Your task to perform on an android device: Open wifi settings Image 0: 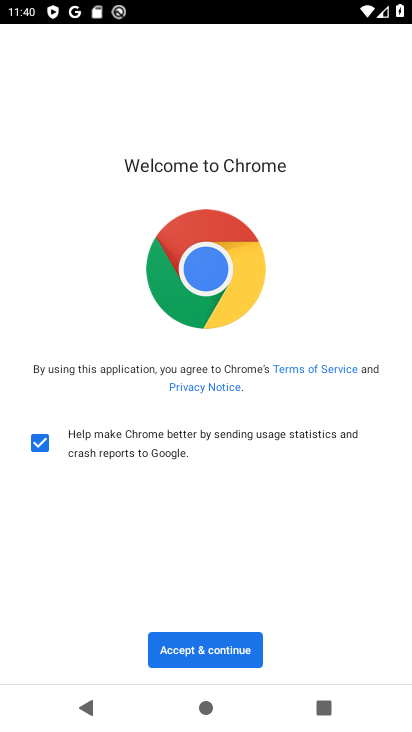
Step 0: press home button
Your task to perform on an android device: Open wifi settings Image 1: 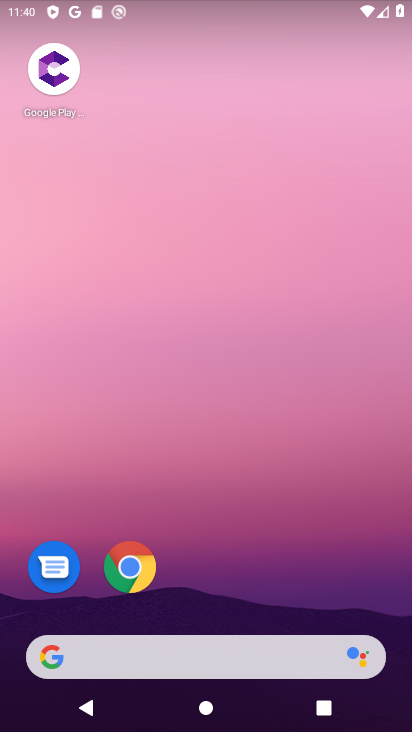
Step 1: drag from (285, 555) to (235, 0)
Your task to perform on an android device: Open wifi settings Image 2: 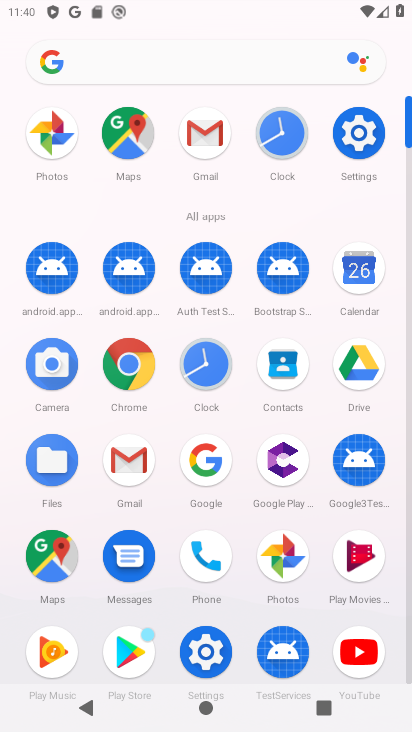
Step 2: click (192, 660)
Your task to perform on an android device: Open wifi settings Image 3: 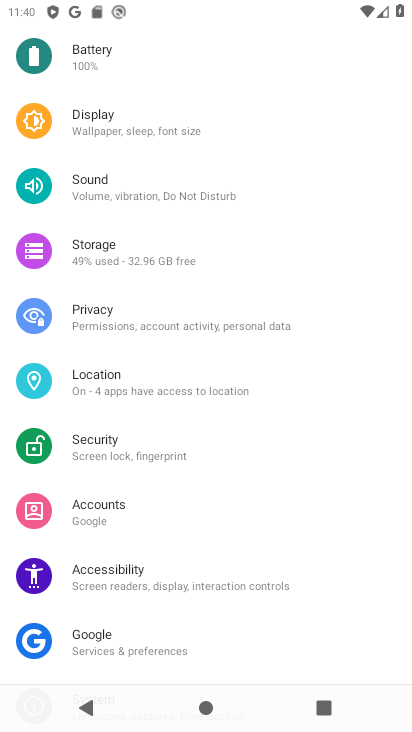
Step 3: drag from (107, 157) to (136, 639)
Your task to perform on an android device: Open wifi settings Image 4: 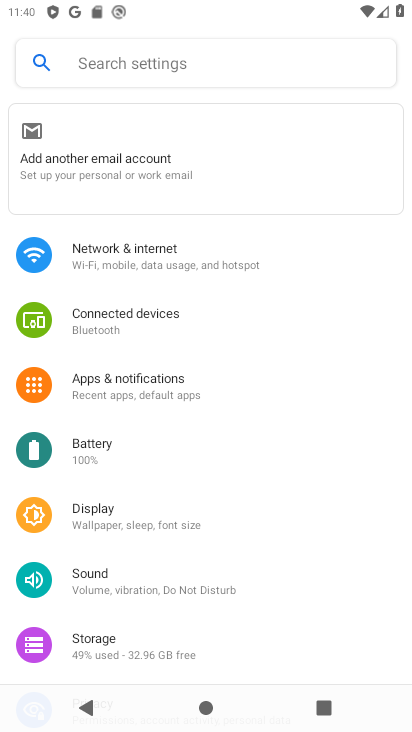
Step 4: click (157, 277)
Your task to perform on an android device: Open wifi settings Image 5: 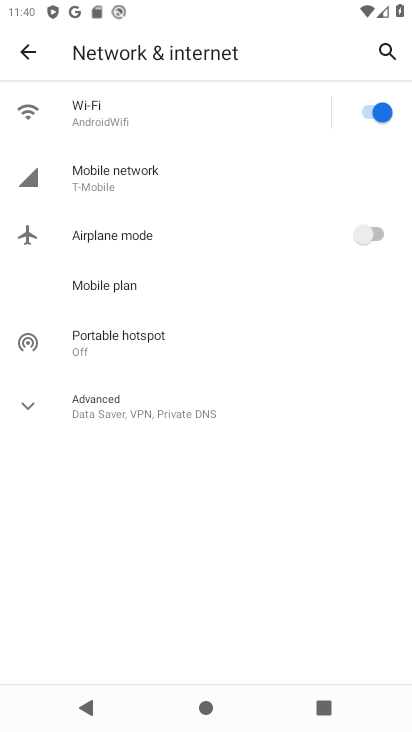
Step 5: click (114, 106)
Your task to perform on an android device: Open wifi settings Image 6: 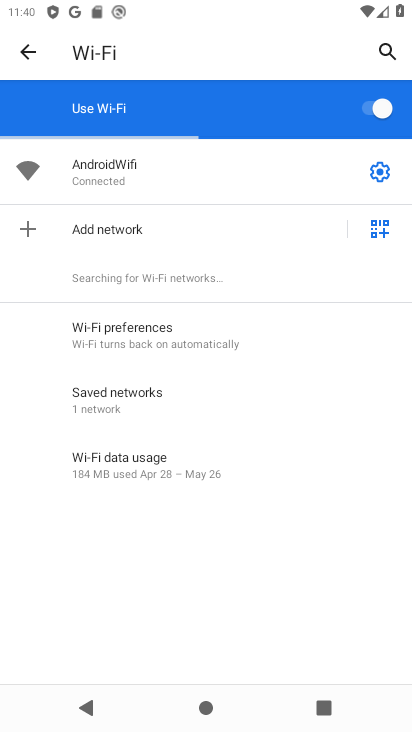
Step 6: task complete